Your task to perform on an android device: When is my next meeting? Image 0: 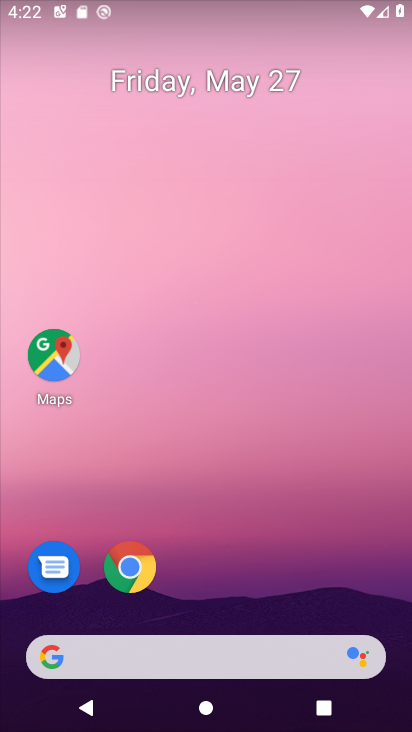
Step 0: drag from (230, 613) to (200, 5)
Your task to perform on an android device: When is my next meeting? Image 1: 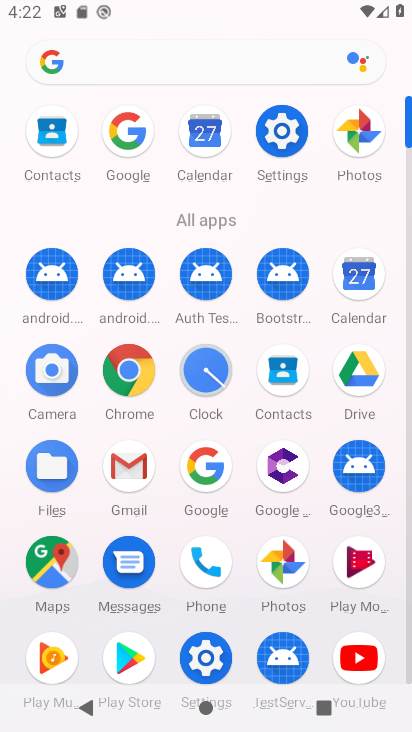
Step 1: click (348, 286)
Your task to perform on an android device: When is my next meeting? Image 2: 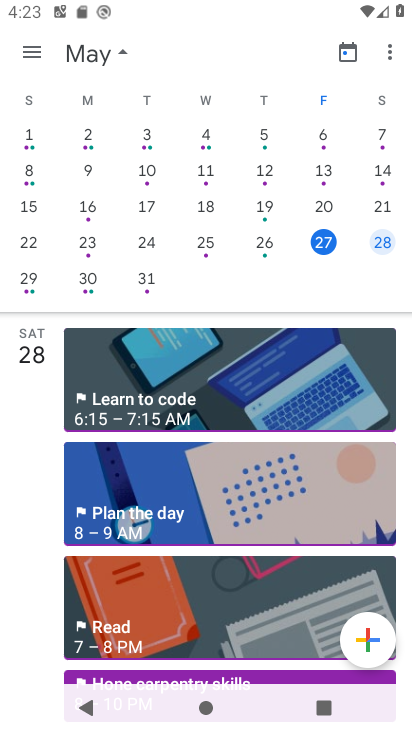
Step 2: click (326, 234)
Your task to perform on an android device: When is my next meeting? Image 3: 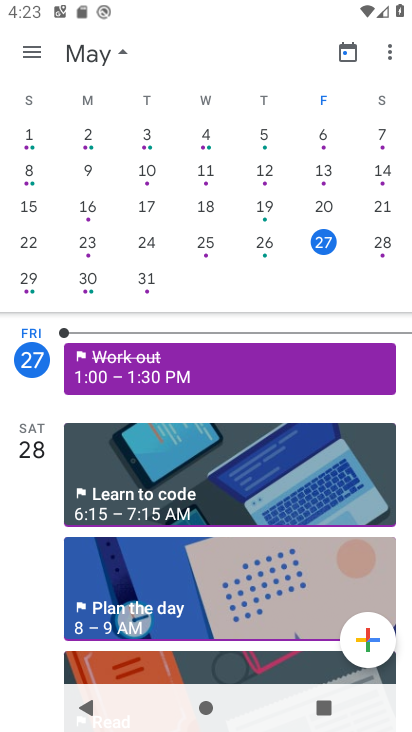
Step 3: task complete